Your task to perform on an android device: star an email in the gmail app Image 0: 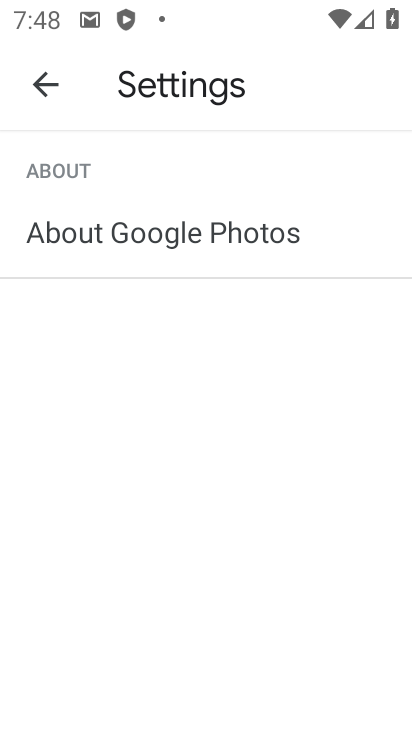
Step 0: press home button
Your task to perform on an android device: star an email in the gmail app Image 1: 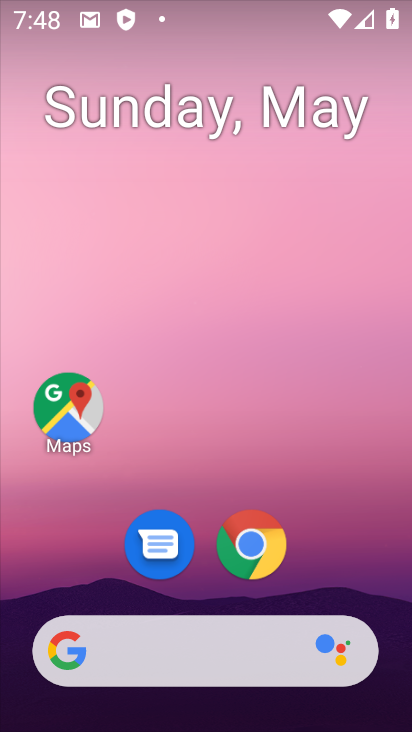
Step 1: drag from (291, 405) to (302, 133)
Your task to perform on an android device: star an email in the gmail app Image 2: 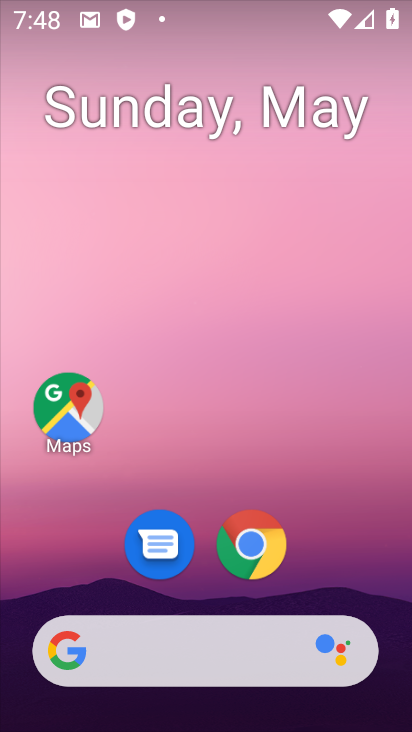
Step 2: drag from (335, 380) to (372, 161)
Your task to perform on an android device: star an email in the gmail app Image 3: 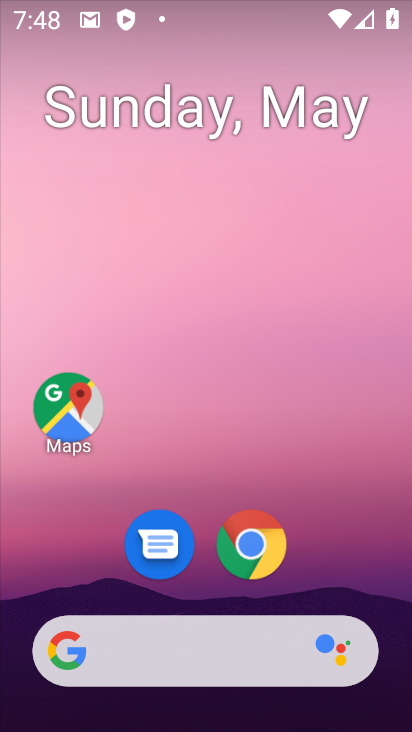
Step 3: drag from (272, 432) to (231, 179)
Your task to perform on an android device: star an email in the gmail app Image 4: 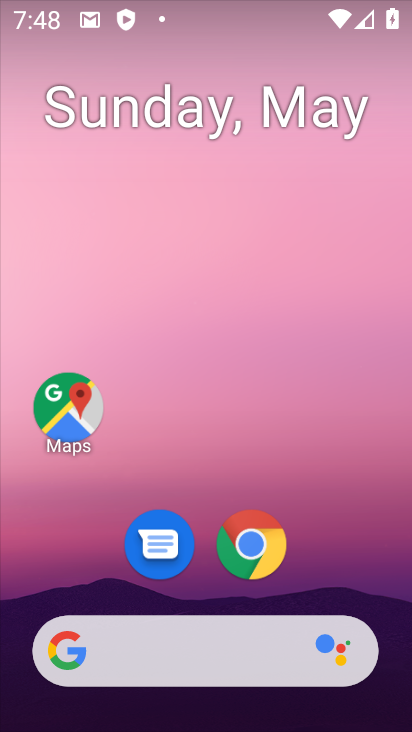
Step 4: drag from (308, 359) to (293, 129)
Your task to perform on an android device: star an email in the gmail app Image 5: 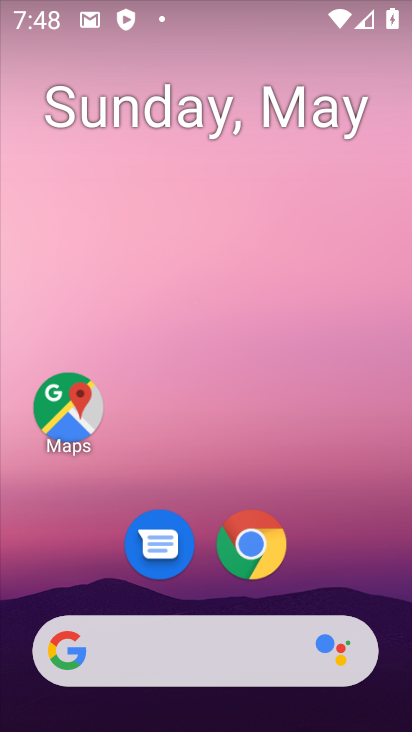
Step 5: click (282, 207)
Your task to perform on an android device: star an email in the gmail app Image 6: 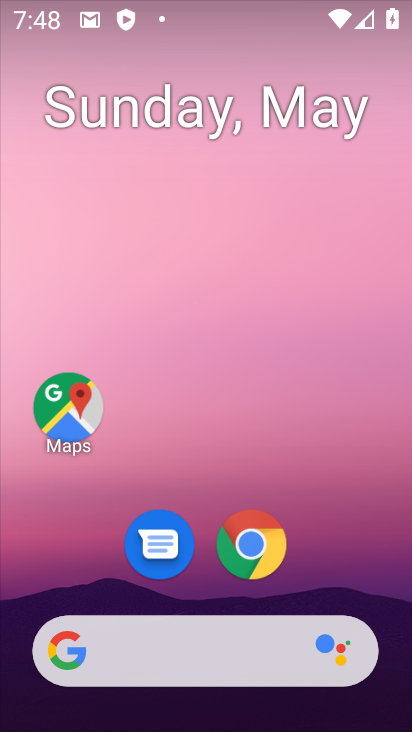
Step 6: drag from (204, 317) to (273, 2)
Your task to perform on an android device: star an email in the gmail app Image 7: 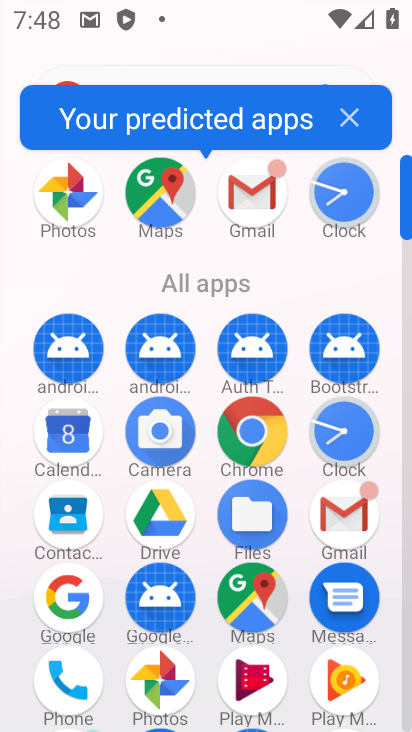
Step 7: click (271, 200)
Your task to perform on an android device: star an email in the gmail app Image 8: 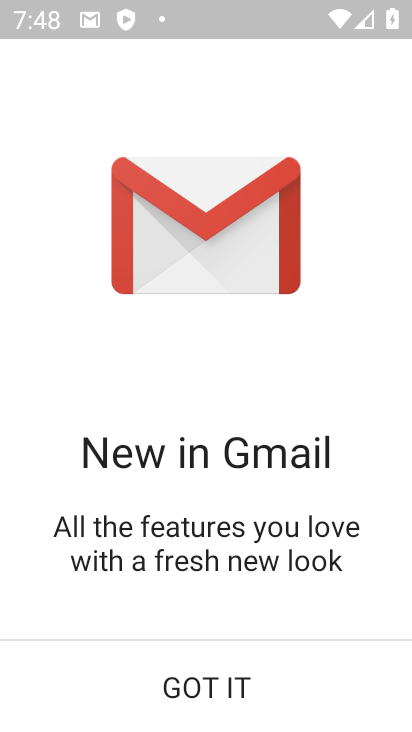
Step 8: click (287, 671)
Your task to perform on an android device: star an email in the gmail app Image 9: 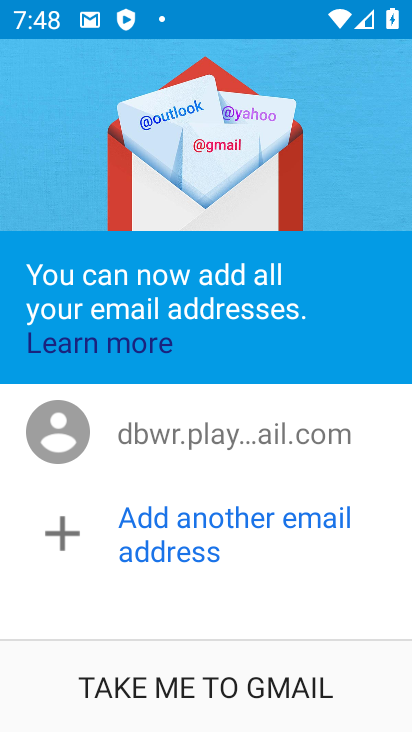
Step 9: click (249, 677)
Your task to perform on an android device: star an email in the gmail app Image 10: 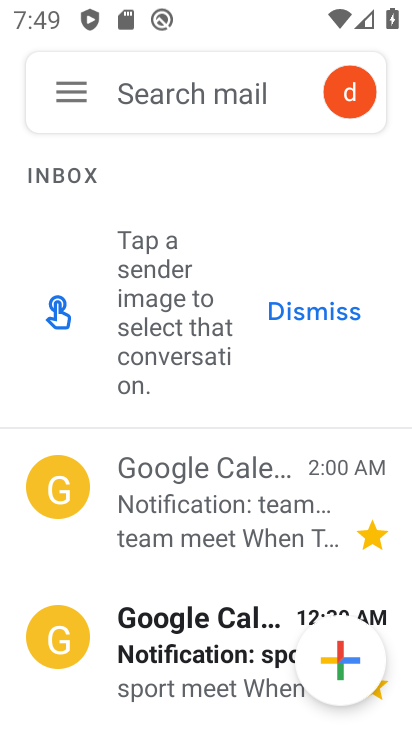
Step 10: click (285, 55)
Your task to perform on an android device: star an email in the gmail app Image 11: 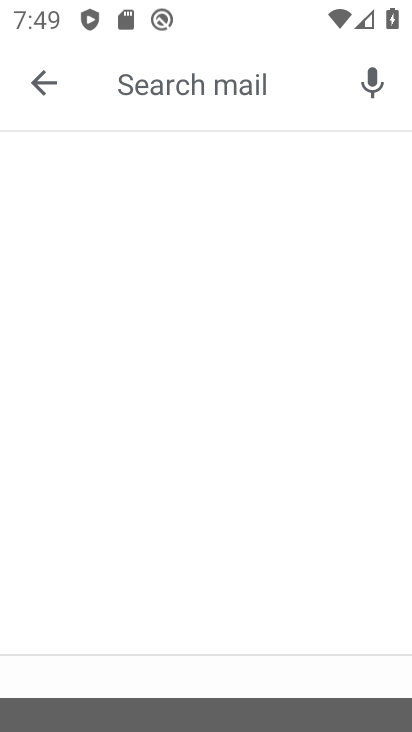
Step 11: drag from (174, 557) to (191, 481)
Your task to perform on an android device: star an email in the gmail app Image 12: 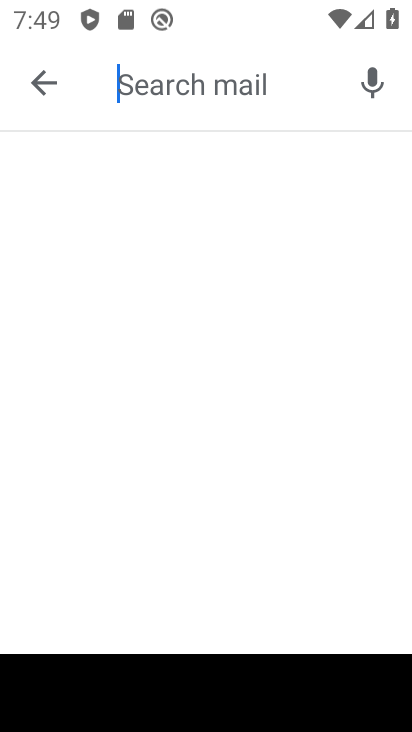
Step 12: click (42, 73)
Your task to perform on an android device: star an email in the gmail app Image 13: 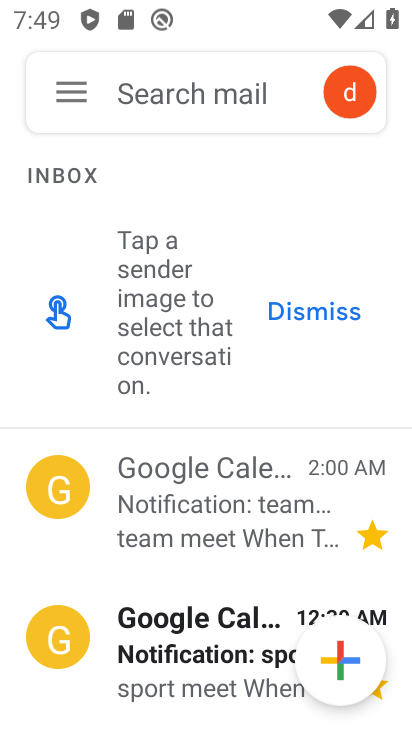
Step 13: drag from (217, 662) to (247, 422)
Your task to perform on an android device: star an email in the gmail app Image 14: 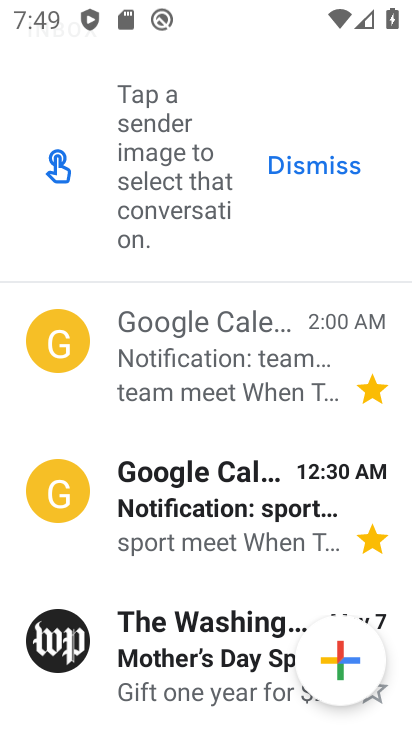
Step 14: drag from (298, 503) to (318, 386)
Your task to perform on an android device: star an email in the gmail app Image 15: 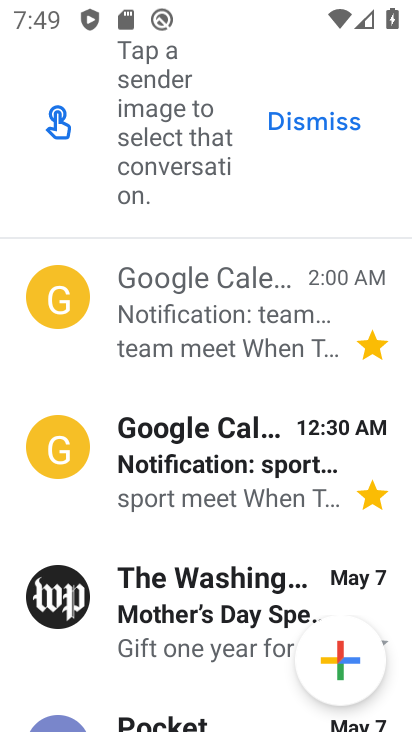
Step 15: drag from (263, 535) to (293, 421)
Your task to perform on an android device: star an email in the gmail app Image 16: 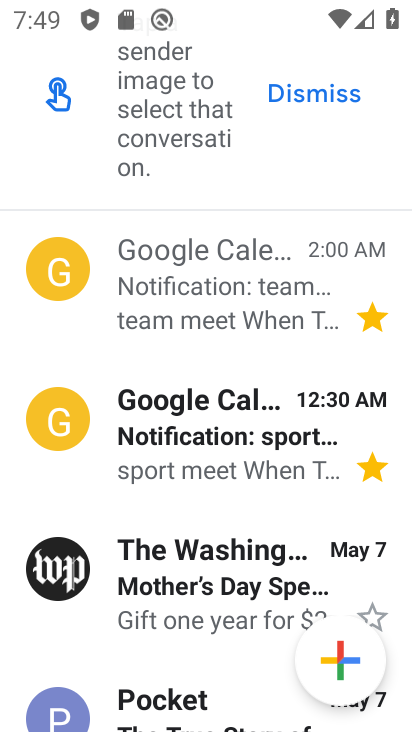
Step 16: click (380, 624)
Your task to perform on an android device: star an email in the gmail app Image 17: 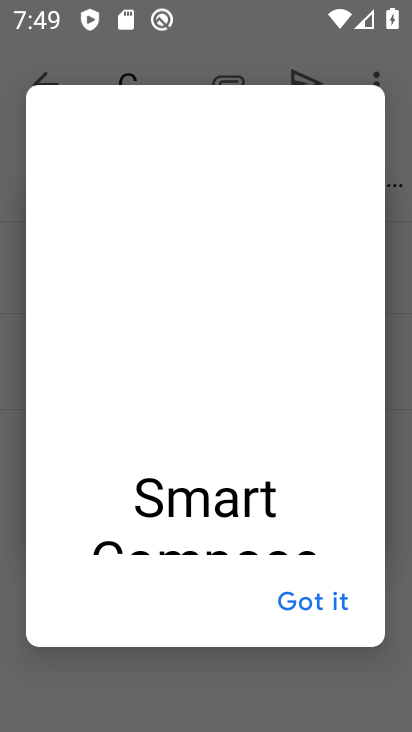
Step 17: click (326, 607)
Your task to perform on an android device: star an email in the gmail app Image 18: 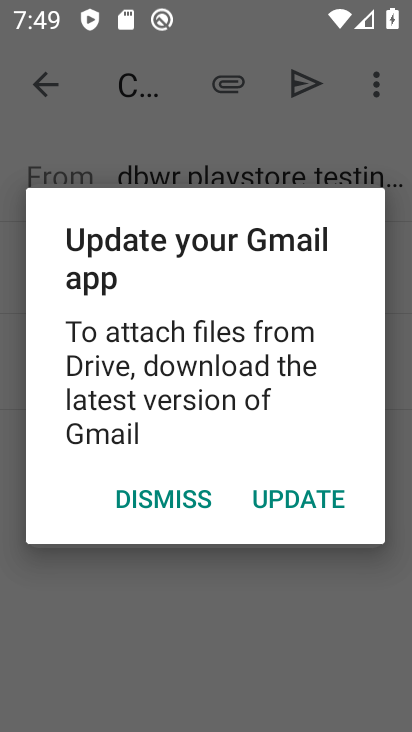
Step 18: click (198, 492)
Your task to perform on an android device: star an email in the gmail app Image 19: 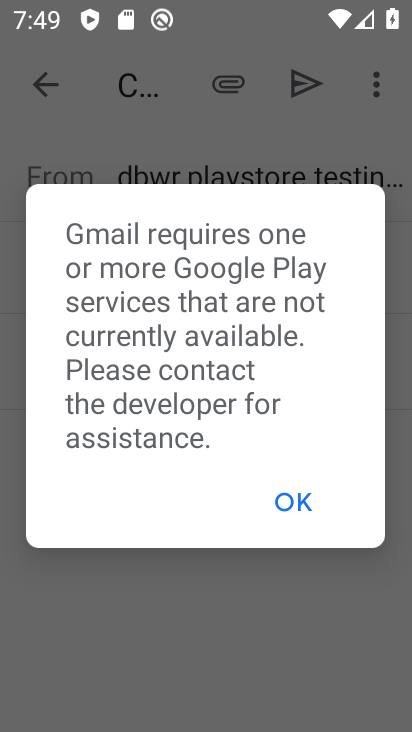
Step 19: click (198, 492)
Your task to perform on an android device: star an email in the gmail app Image 20: 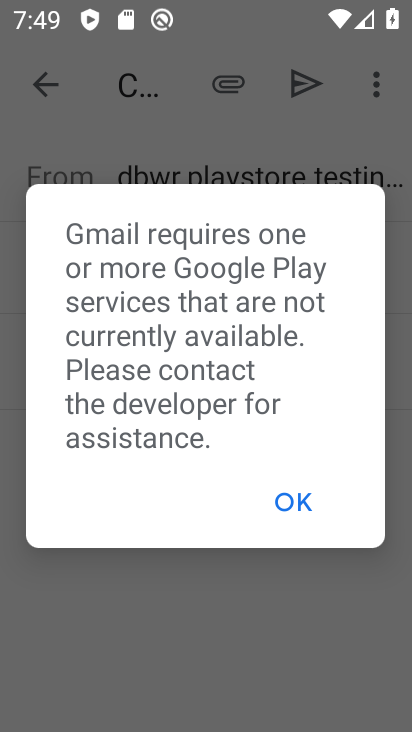
Step 20: click (299, 513)
Your task to perform on an android device: star an email in the gmail app Image 21: 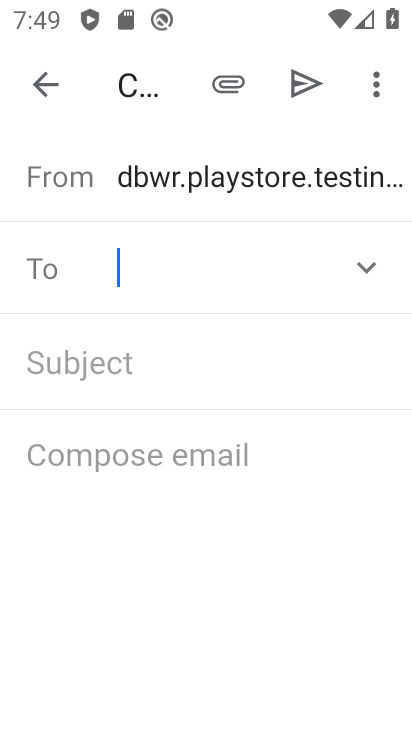
Step 21: click (41, 81)
Your task to perform on an android device: star an email in the gmail app Image 22: 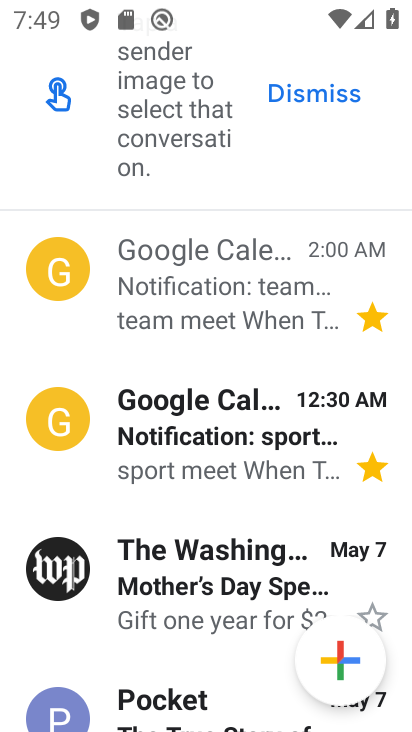
Step 22: click (372, 607)
Your task to perform on an android device: star an email in the gmail app Image 23: 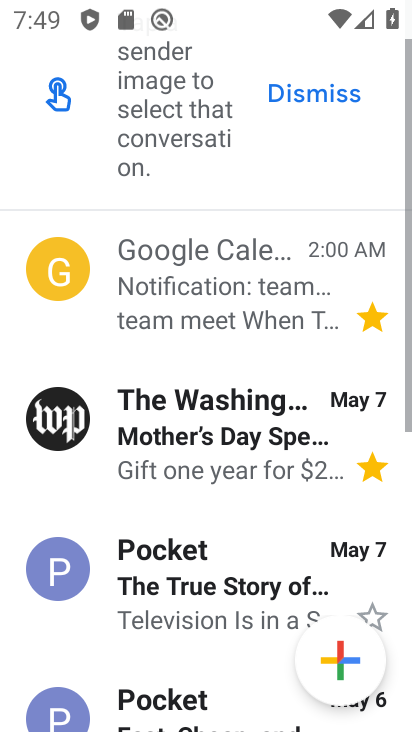
Step 23: task complete